Your task to perform on an android device: Go to ESPN.com Image 0: 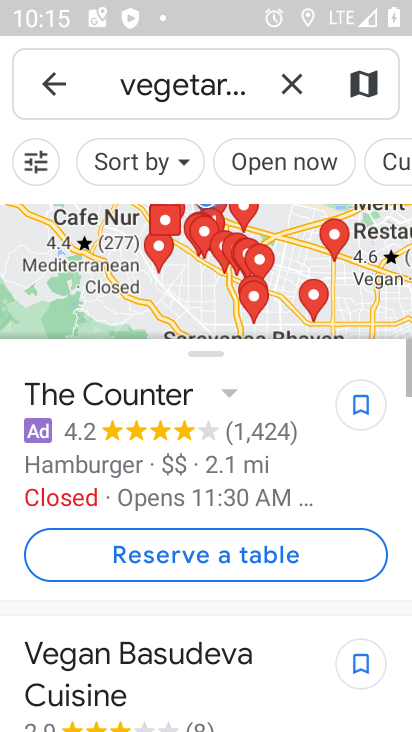
Step 0: press home button
Your task to perform on an android device: Go to ESPN.com Image 1: 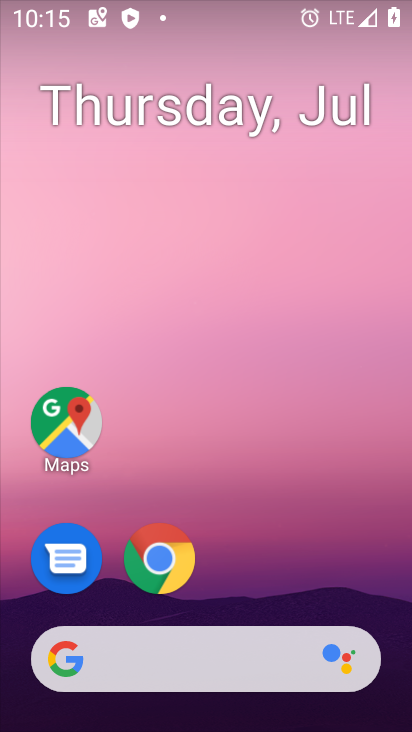
Step 1: drag from (360, 572) to (359, 122)
Your task to perform on an android device: Go to ESPN.com Image 2: 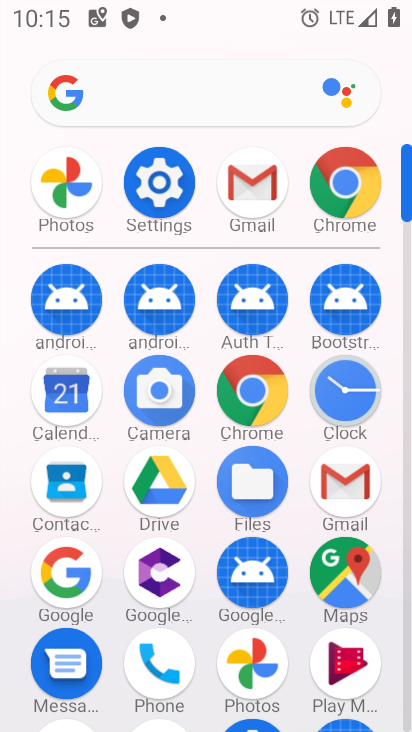
Step 2: click (262, 391)
Your task to perform on an android device: Go to ESPN.com Image 3: 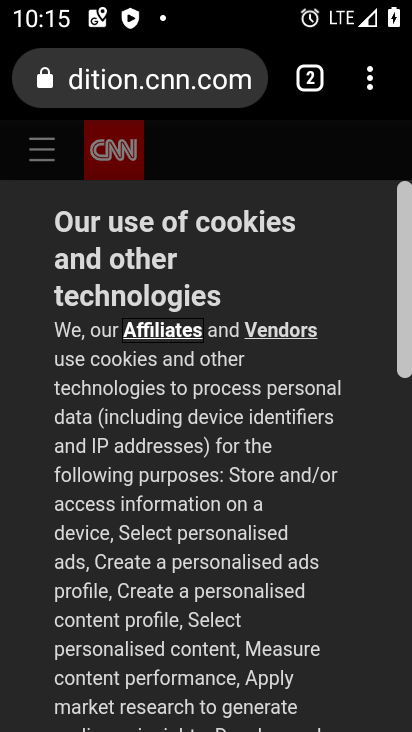
Step 3: click (211, 85)
Your task to perform on an android device: Go to ESPN.com Image 4: 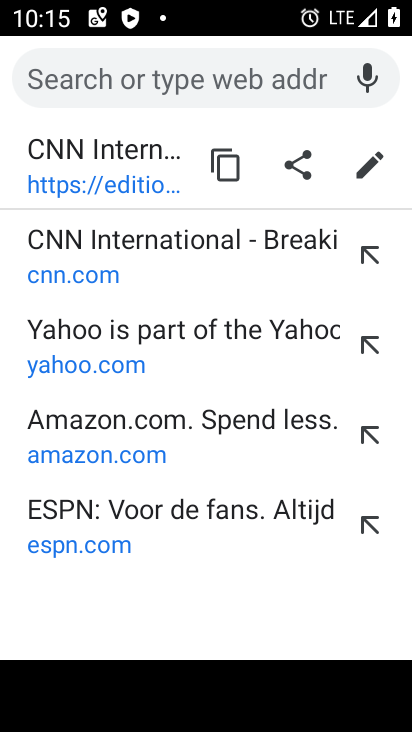
Step 4: type "espn.com"
Your task to perform on an android device: Go to ESPN.com Image 5: 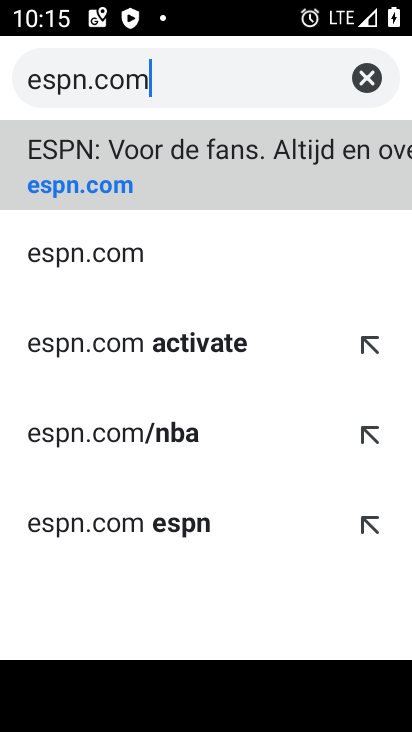
Step 5: click (300, 161)
Your task to perform on an android device: Go to ESPN.com Image 6: 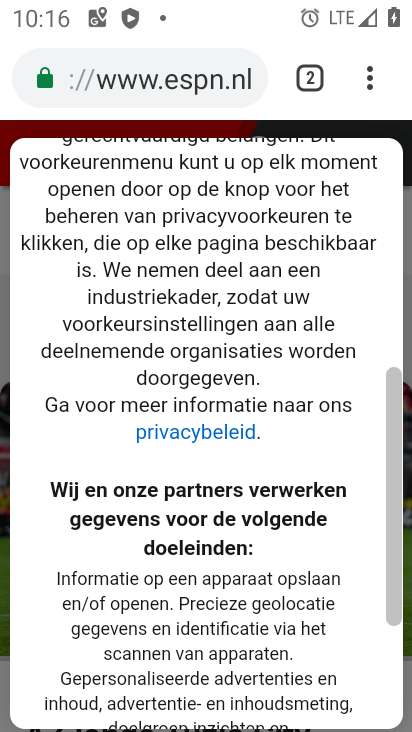
Step 6: task complete